Your task to perform on an android device: Open Yahoo.com Image 0: 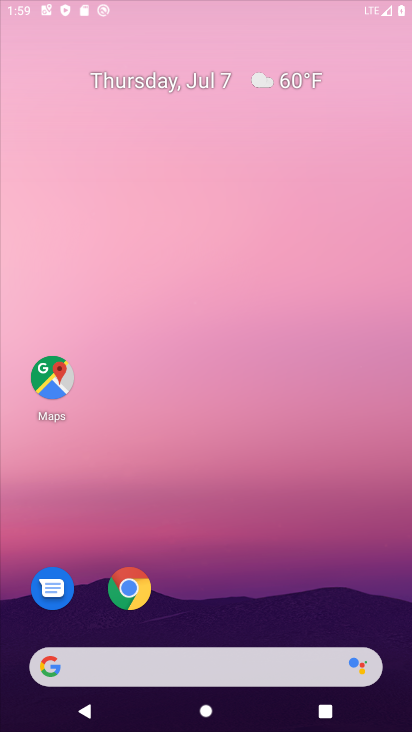
Step 0: drag from (296, 622) to (293, 303)
Your task to perform on an android device: Open Yahoo.com Image 1: 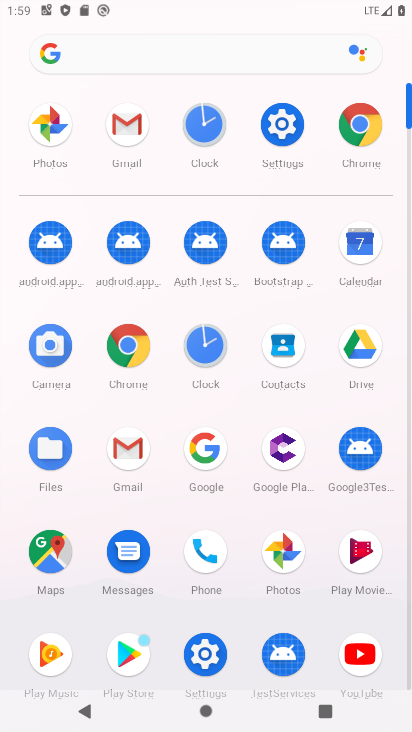
Step 1: click (359, 122)
Your task to perform on an android device: Open Yahoo.com Image 2: 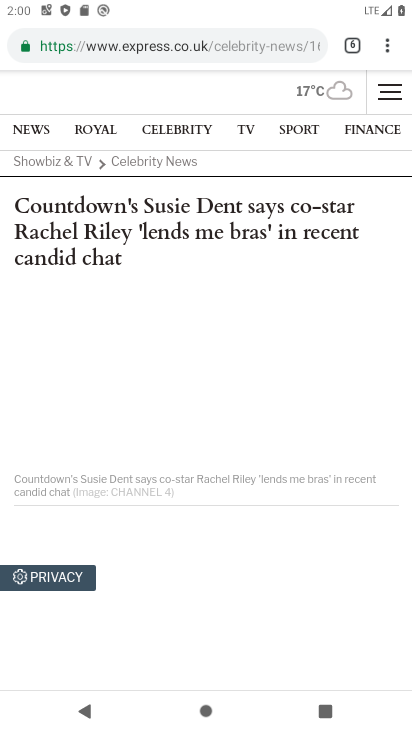
Step 2: click (392, 49)
Your task to perform on an android device: Open Yahoo.com Image 3: 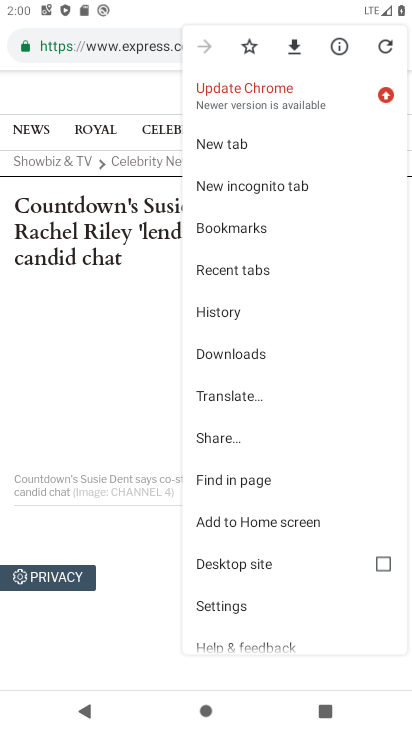
Step 3: click (246, 157)
Your task to perform on an android device: Open Yahoo.com Image 4: 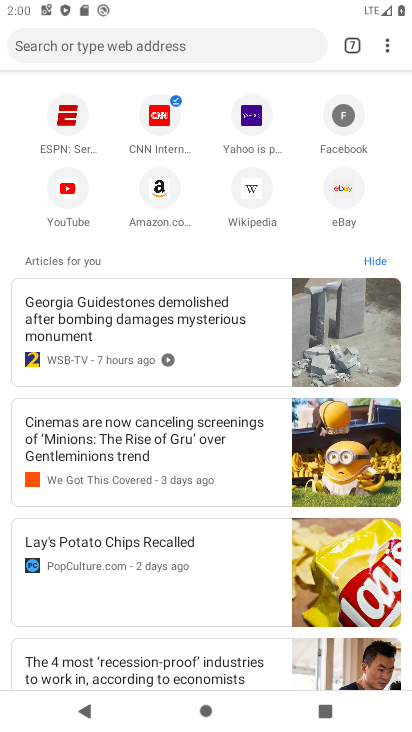
Step 4: click (241, 119)
Your task to perform on an android device: Open Yahoo.com Image 5: 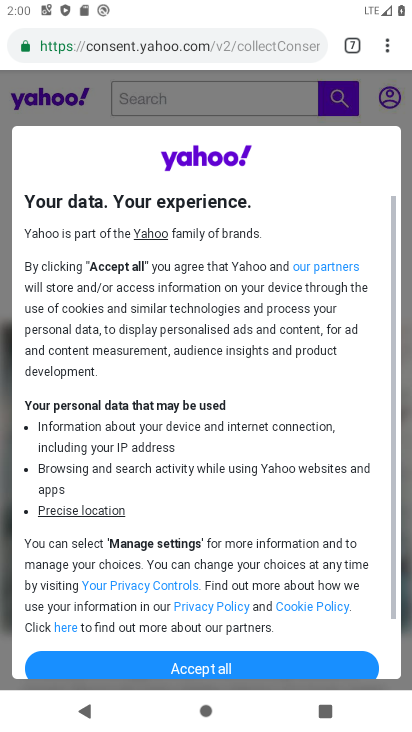
Step 5: task complete